Your task to perform on an android device: Clear all items from cart on amazon. Search for razer thresher on amazon, select the first entry, and add it to the cart. Image 0: 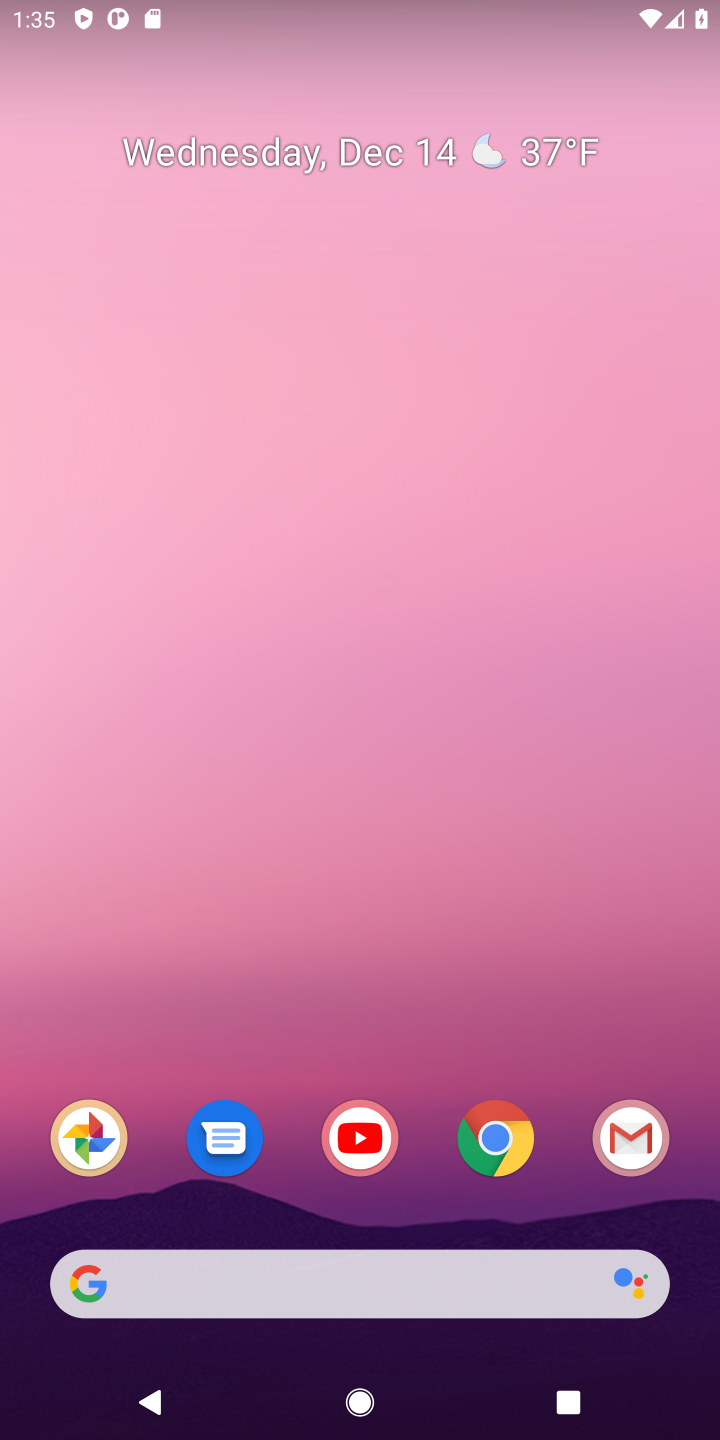
Step 0: click (499, 1141)
Your task to perform on an android device: Clear all items from cart on amazon. Search for razer thresher on amazon, select the first entry, and add it to the cart. Image 1: 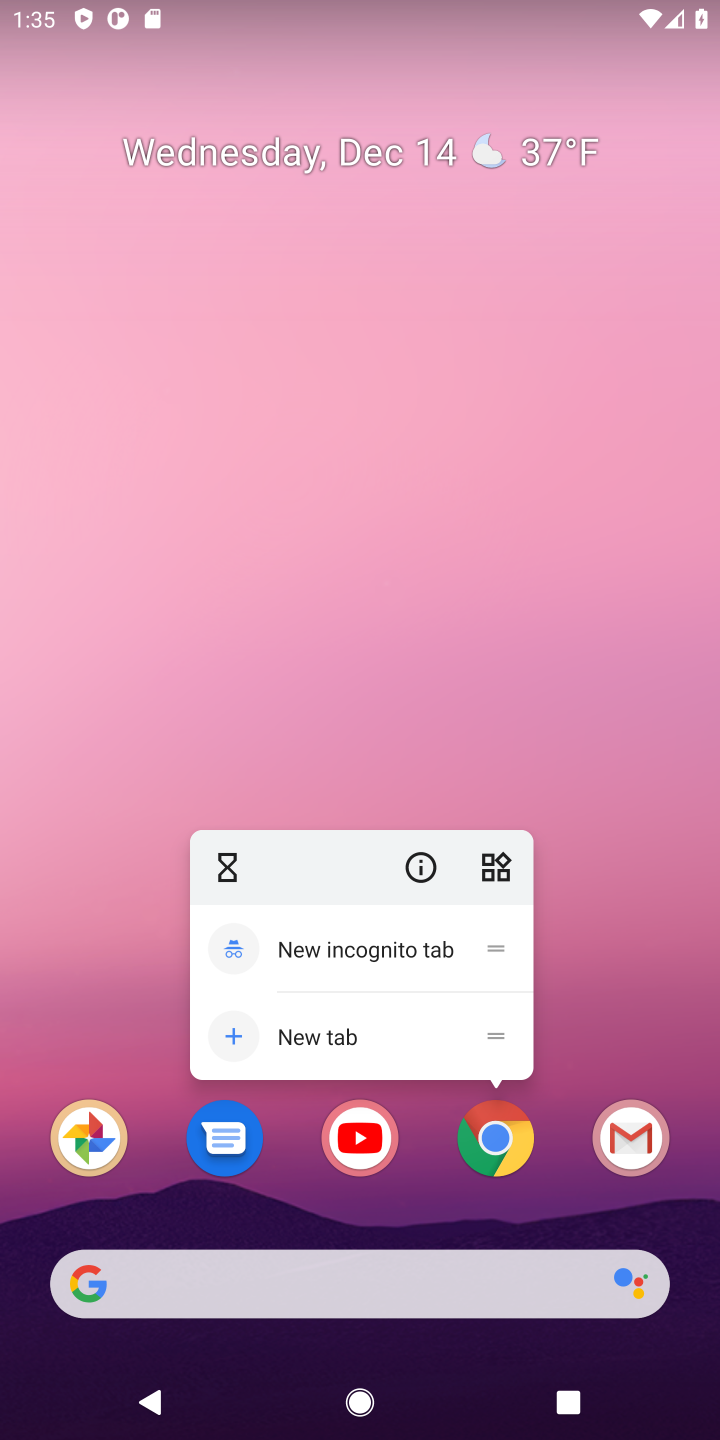
Step 1: click (499, 1141)
Your task to perform on an android device: Clear all items from cart on amazon. Search for razer thresher on amazon, select the first entry, and add it to the cart. Image 2: 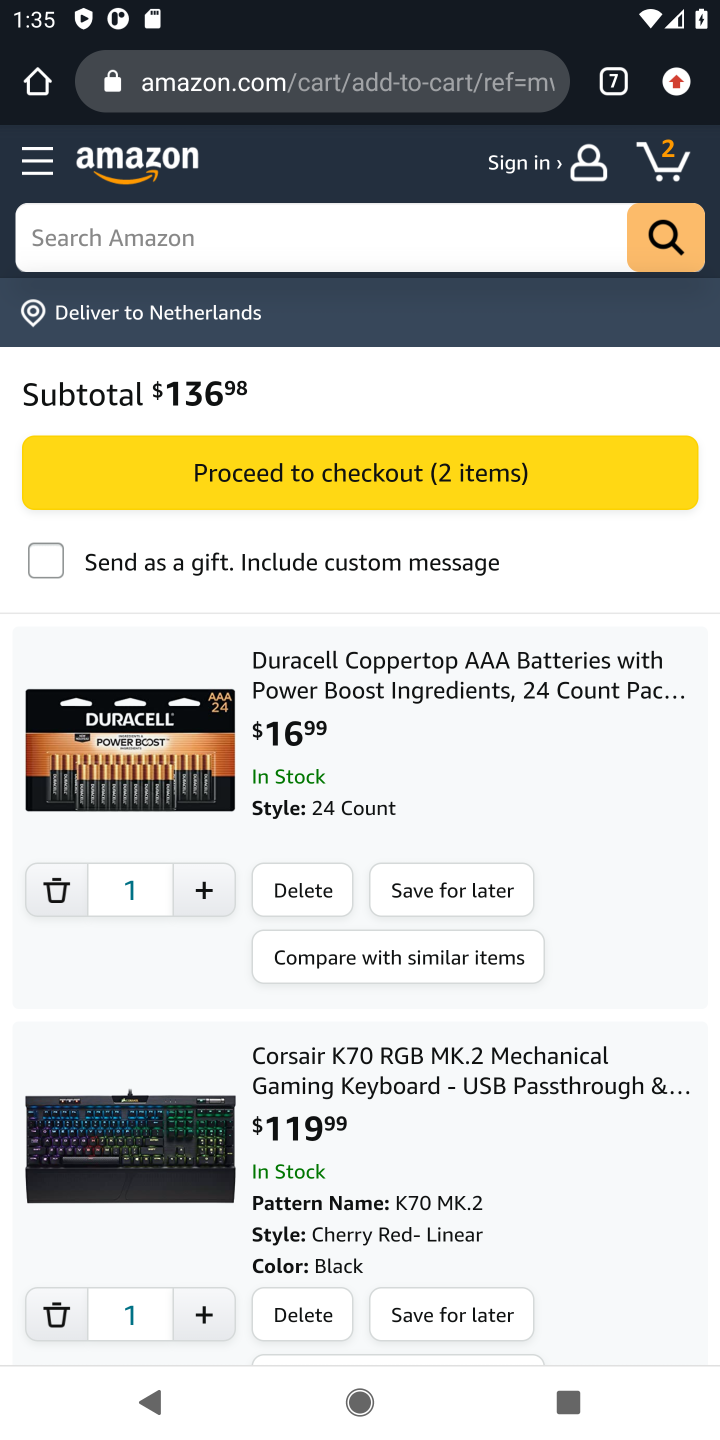
Step 2: click (306, 884)
Your task to perform on an android device: Clear all items from cart on amazon. Search for razer thresher on amazon, select the first entry, and add it to the cart. Image 3: 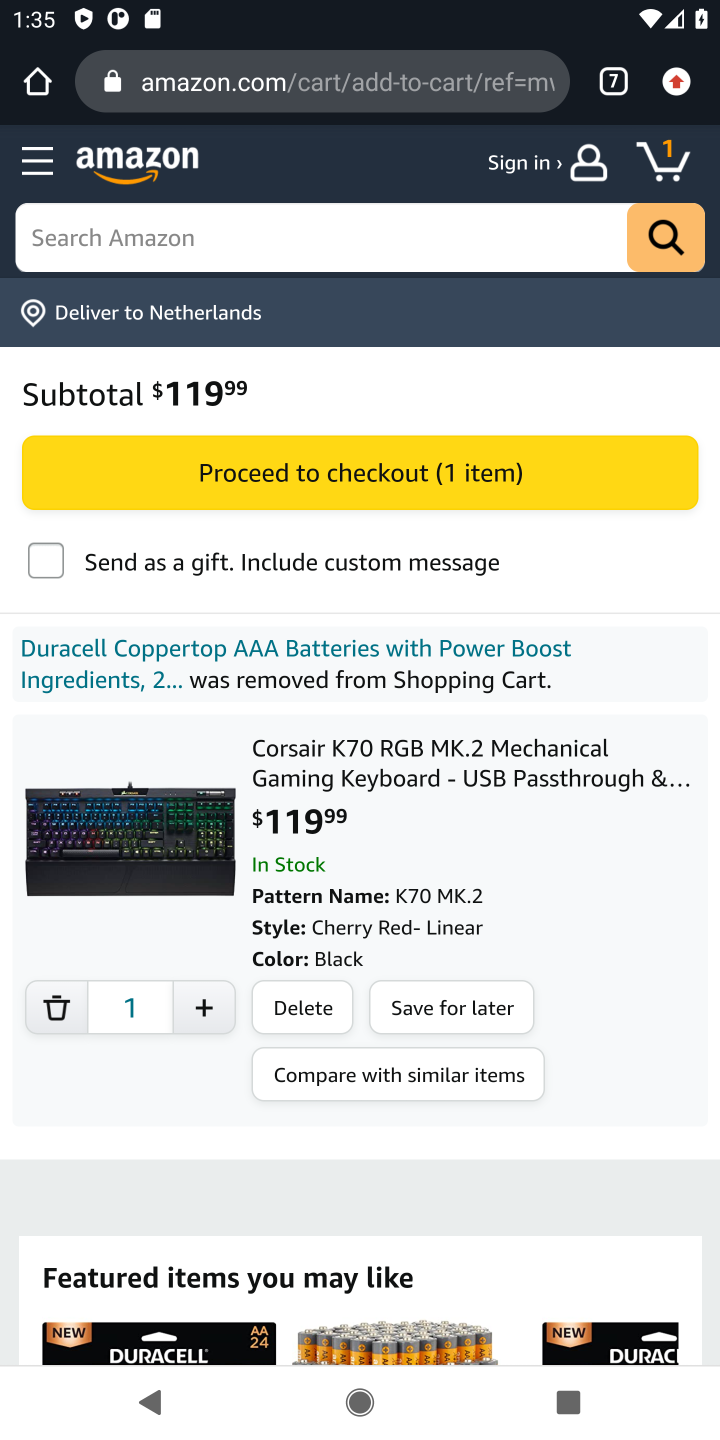
Step 3: click (312, 1011)
Your task to perform on an android device: Clear all items from cart on amazon. Search for razer thresher on amazon, select the first entry, and add it to the cart. Image 4: 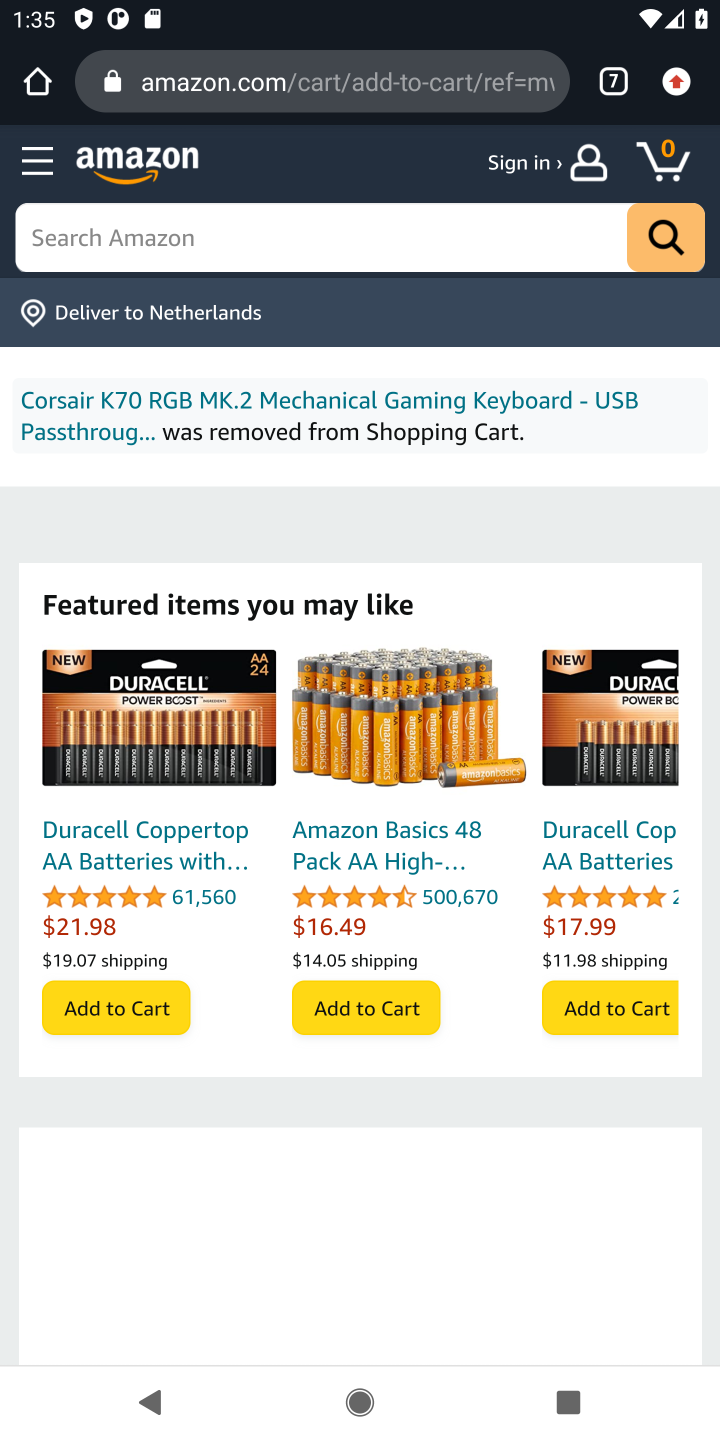
Step 4: click (172, 234)
Your task to perform on an android device: Clear all items from cart on amazon. Search for razer thresher on amazon, select the first entry, and add it to the cart. Image 5: 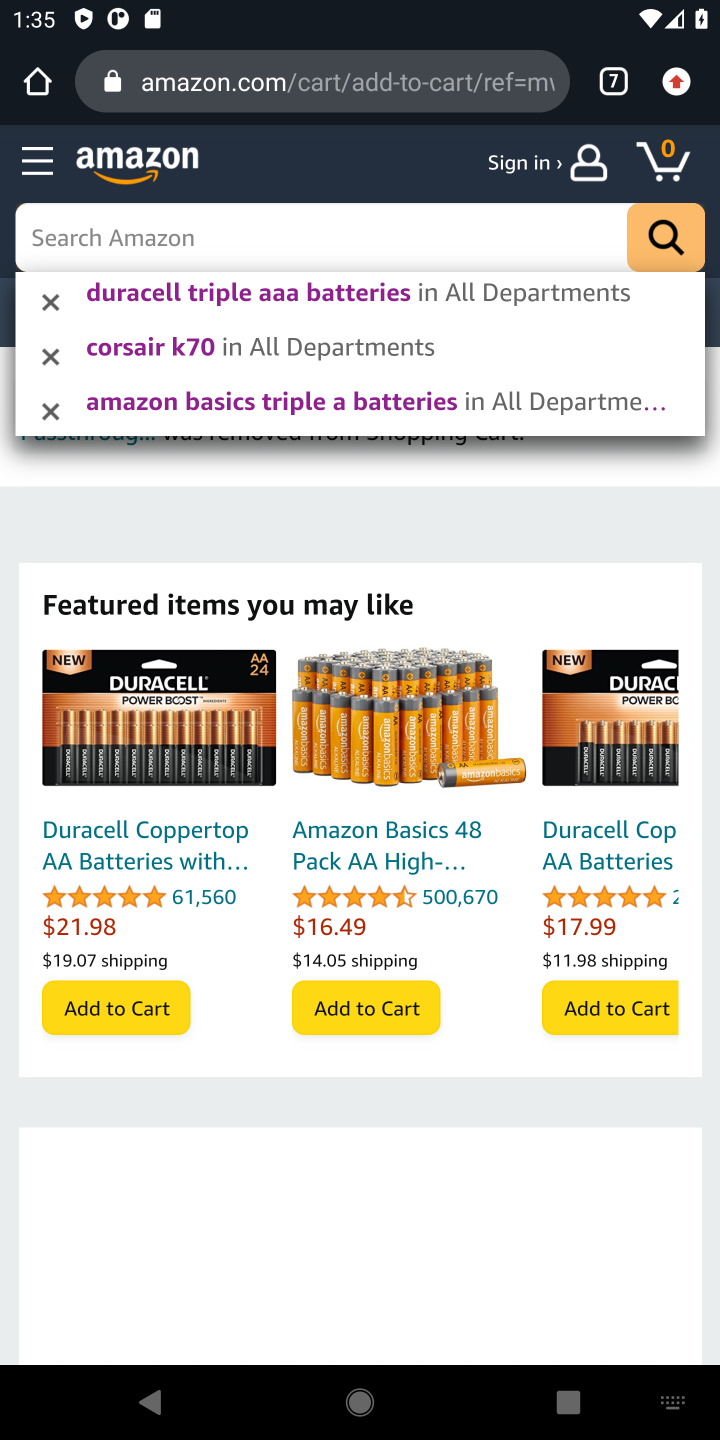
Step 5: type "razer thresher"
Your task to perform on an android device: Clear all items from cart on amazon. Search for razer thresher on amazon, select the first entry, and add it to the cart. Image 6: 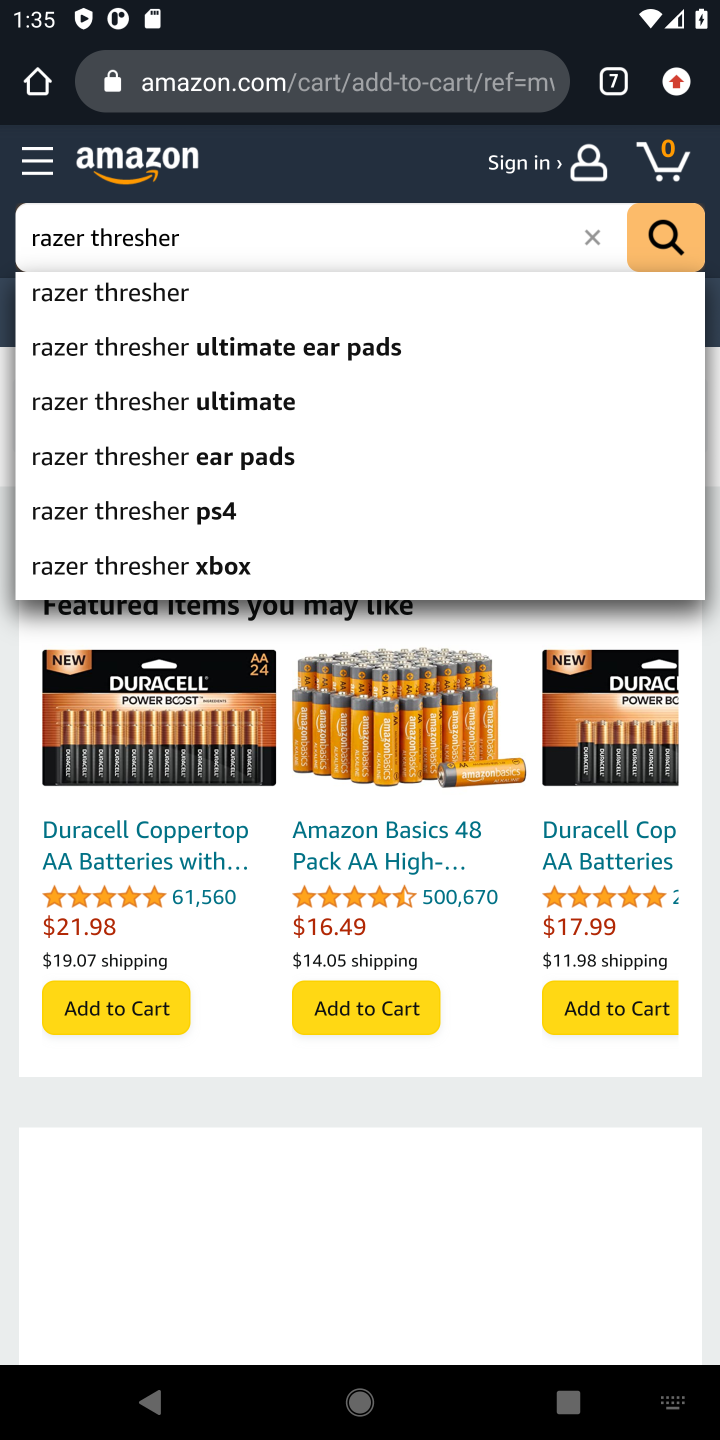
Step 6: click (129, 296)
Your task to perform on an android device: Clear all items from cart on amazon. Search for razer thresher on amazon, select the first entry, and add it to the cart. Image 7: 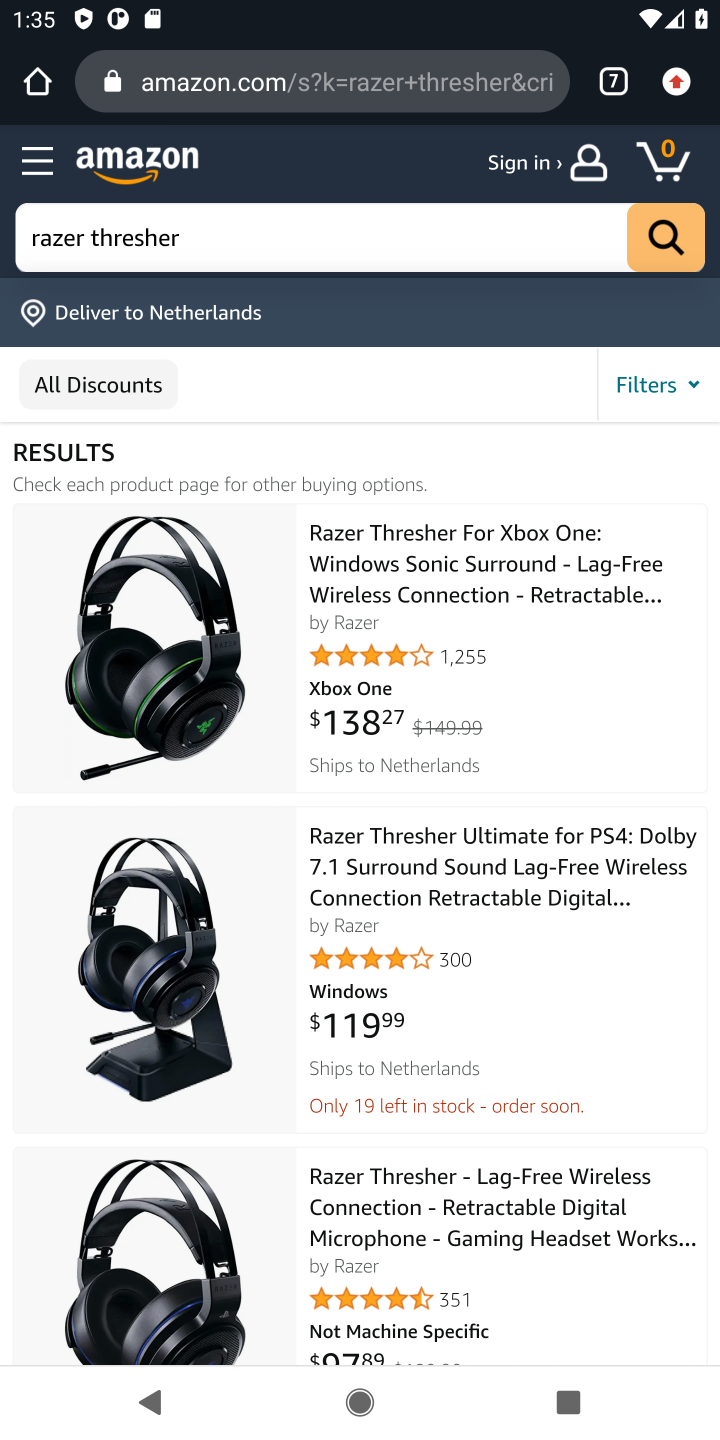
Step 7: click (453, 566)
Your task to perform on an android device: Clear all items from cart on amazon. Search for razer thresher on amazon, select the first entry, and add it to the cart. Image 8: 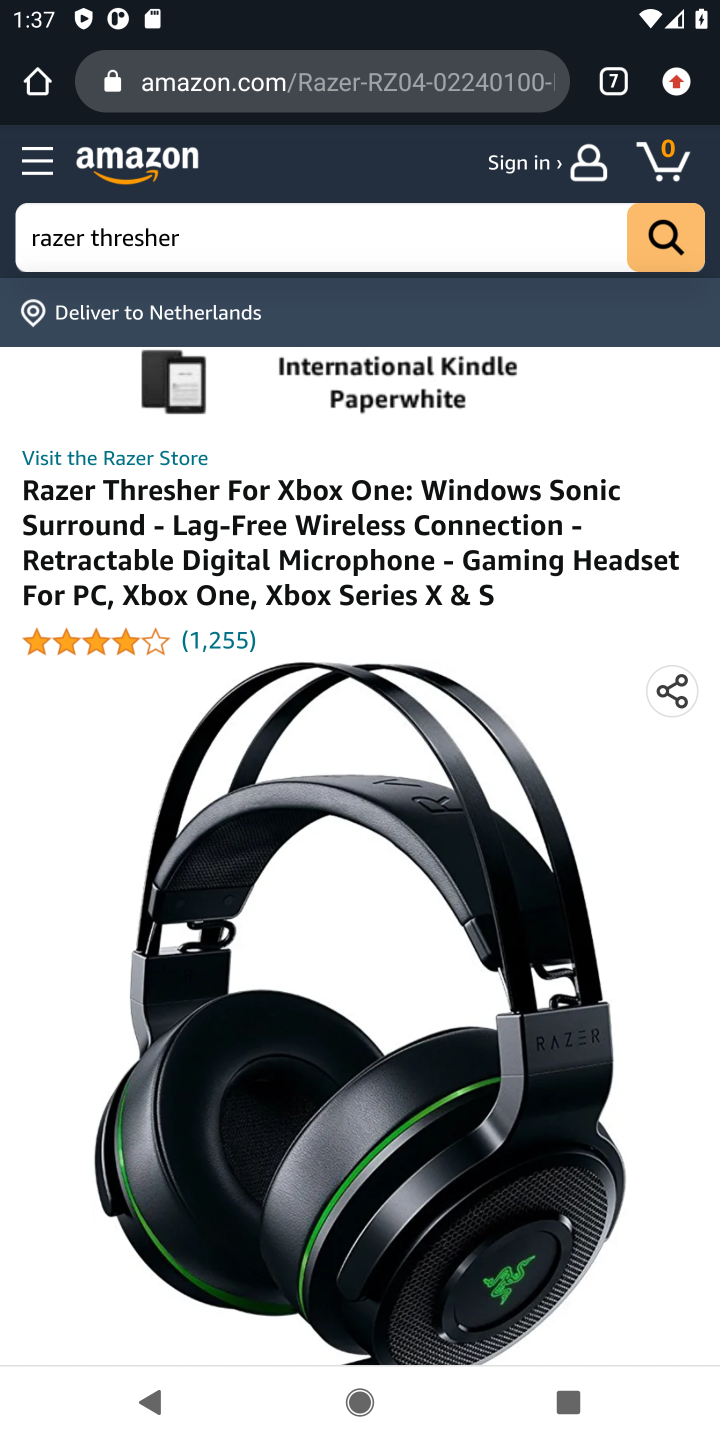
Step 8: drag from (506, 563) to (618, 109)
Your task to perform on an android device: Clear all items from cart on amazon. Search for razer thresher on amazon, select the first entry, and add it to the cart. Image 9: 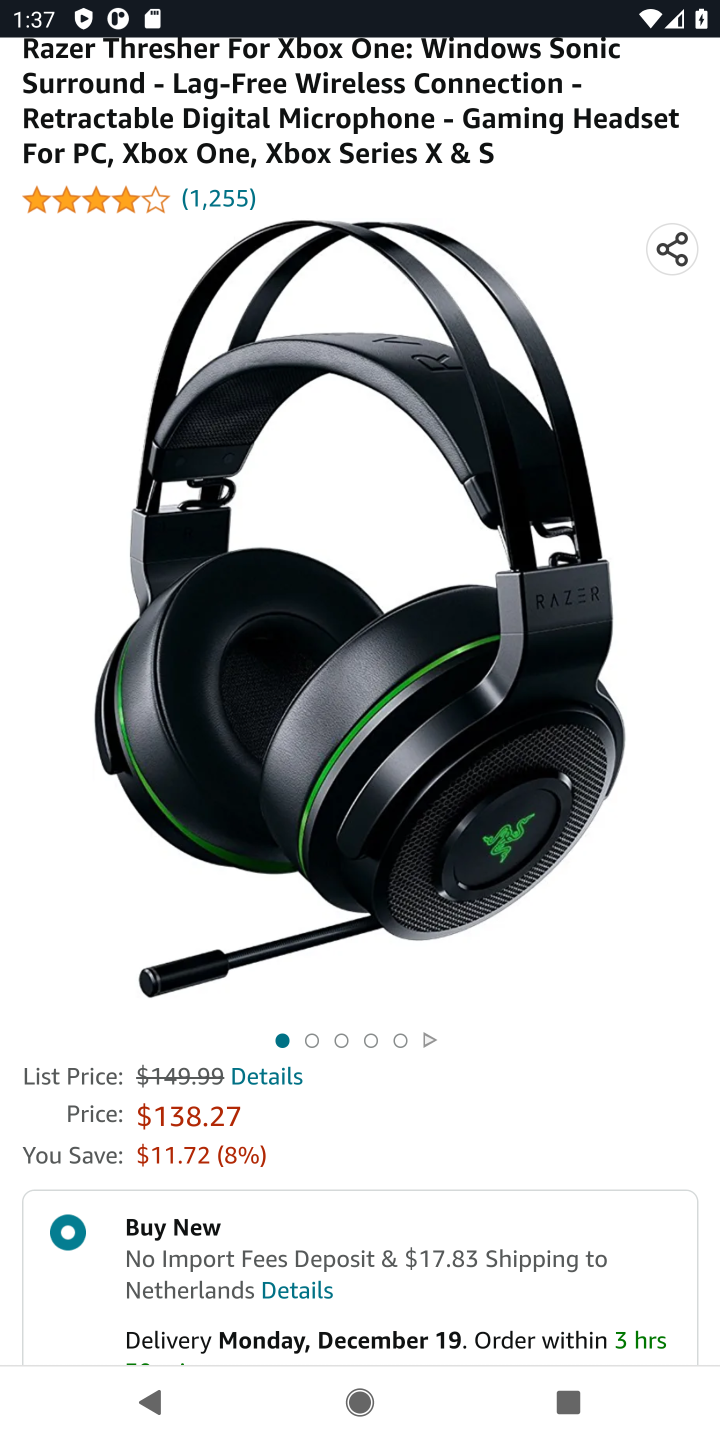
Step 9: drag from (377, 1288) to (420, 411)
Your task to perform on an android device: Clear all items from cart on amazon. Search for razer thresher on amazon, select the first entry, and add it to the cart. Image 10: 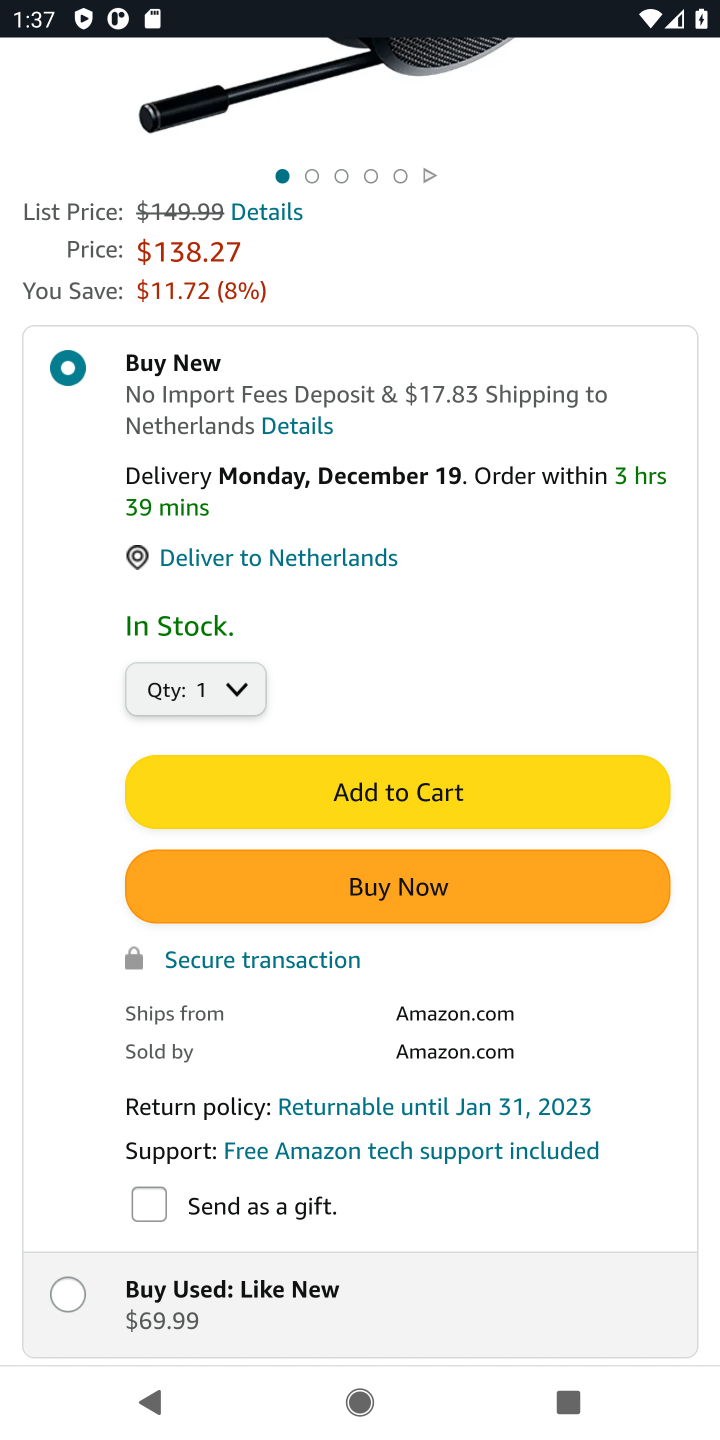
Step 10: click (375, 798)
Your task to perform on an android device: Clear all items from cart on amazon. Search for razer thresher on amazon, select the first entry, and add it to the cart. Image 11: 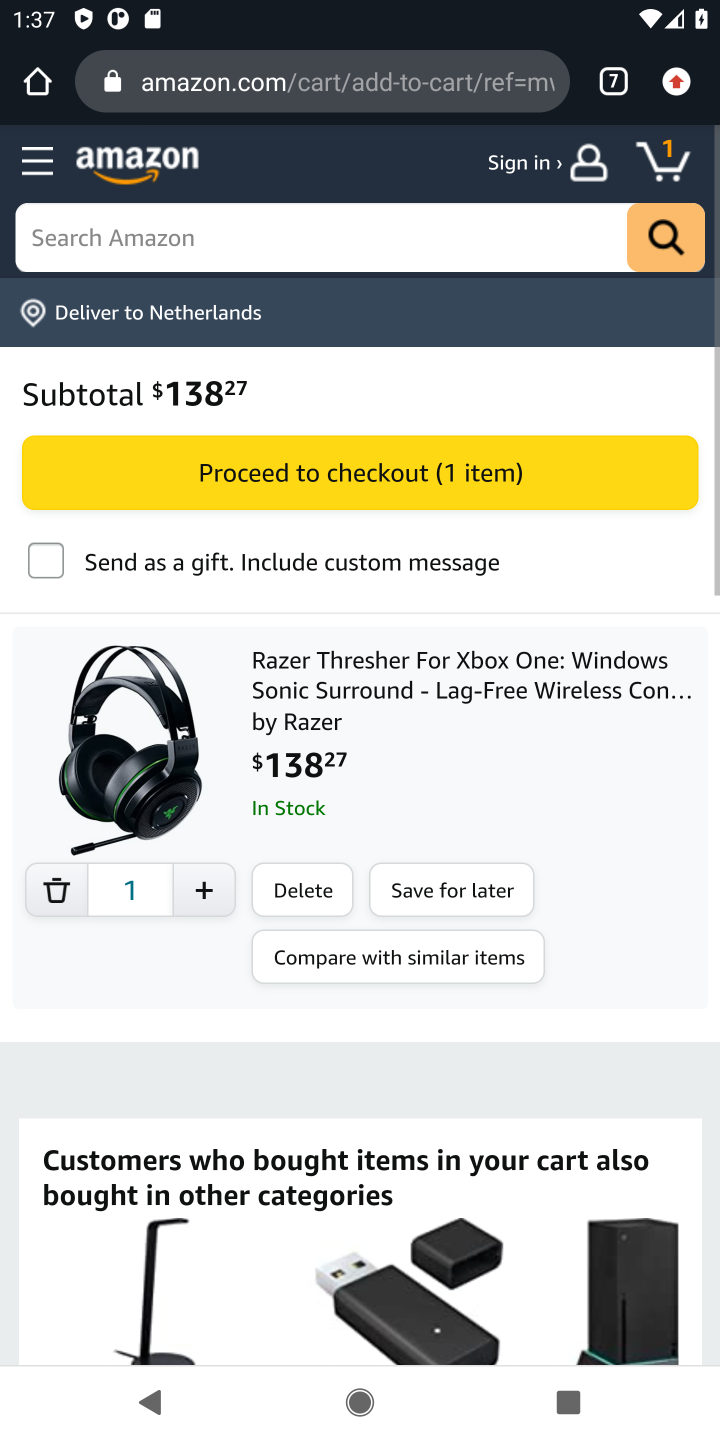
Step 11: task complete